Your task to perform on an android device: What's the weather going to be tomorrow? Image 0: 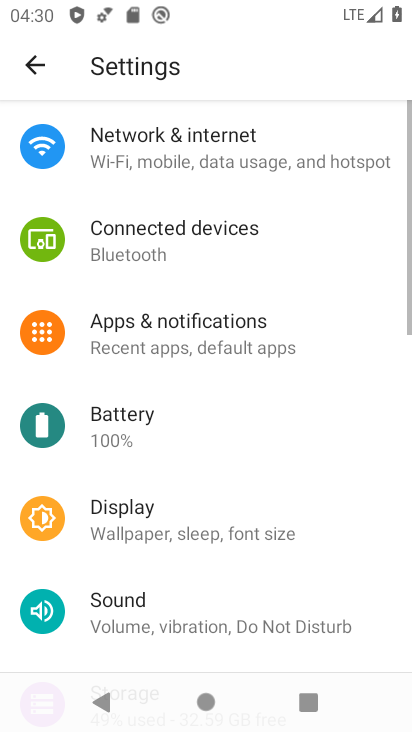
Step 0: press home button
Your task to perform on an android device: What's the weather going to be tomorrow? Image 1: 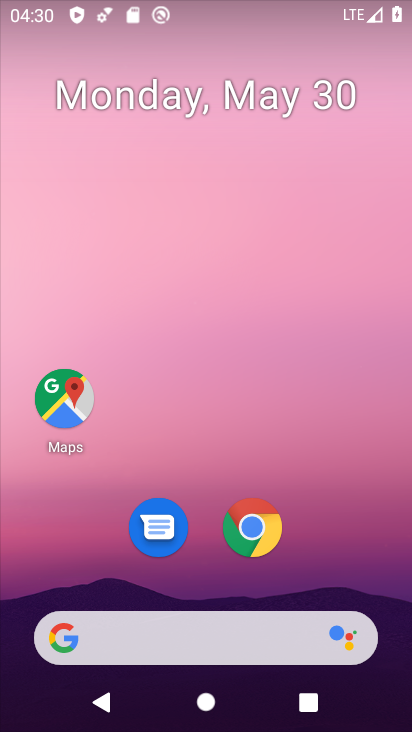
Step 1: drag from (226, 709) to (228, 629)
Your task to perform on an android device: What's the weather going to be tomorrow? Image 2: 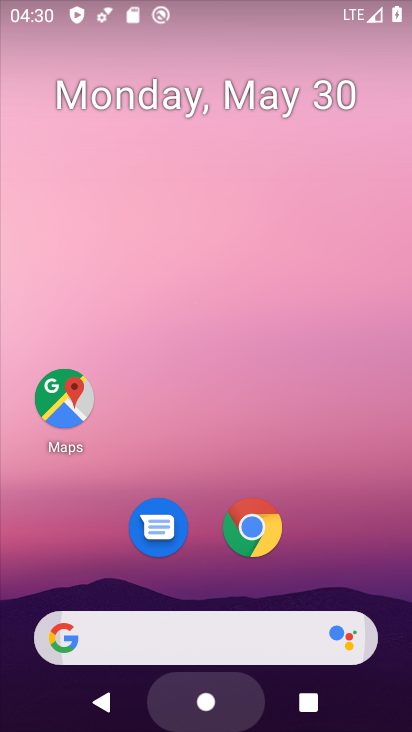
Step 2: drag from (226, 65) to (244, 25)
Your task to perform on an android device: What's the weather going to be tomorrow? Image 3: 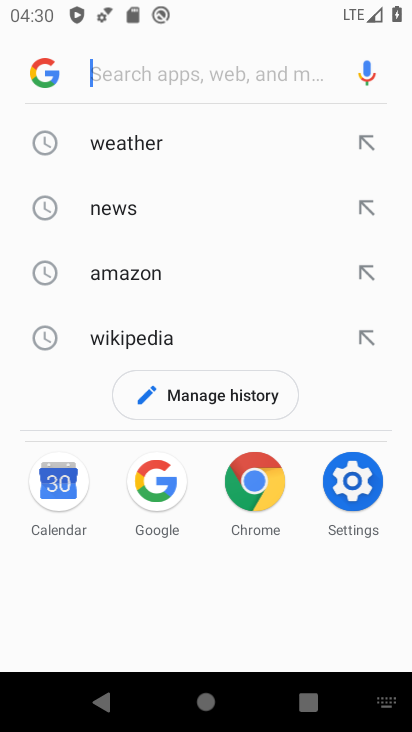
Step 3: press home button
Your task to perform on an android device: What's the weather going to be tomorrow? Image 4: 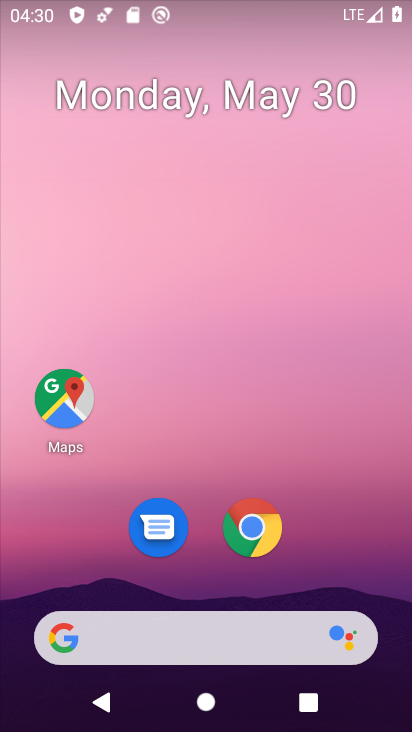
Step 4: drag from (236, 726) to (222, 14)
Your task to perform on an android device: What's the weather going to be tomorrow? Image 5: 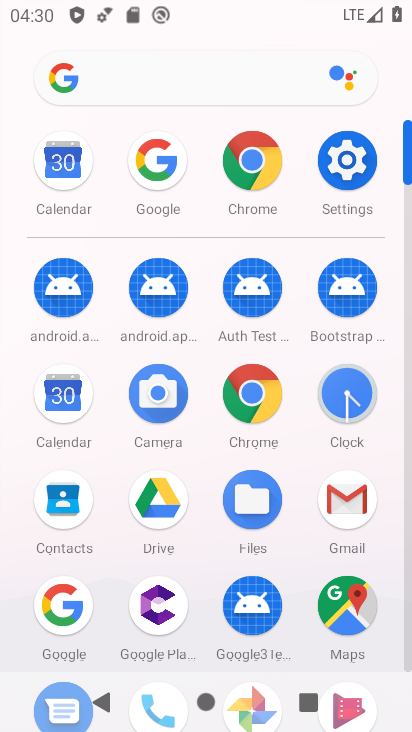
Step 5: click (66, 601)
Your task to perform on an android device: What's the weather going to be tomorrow? Image 6: 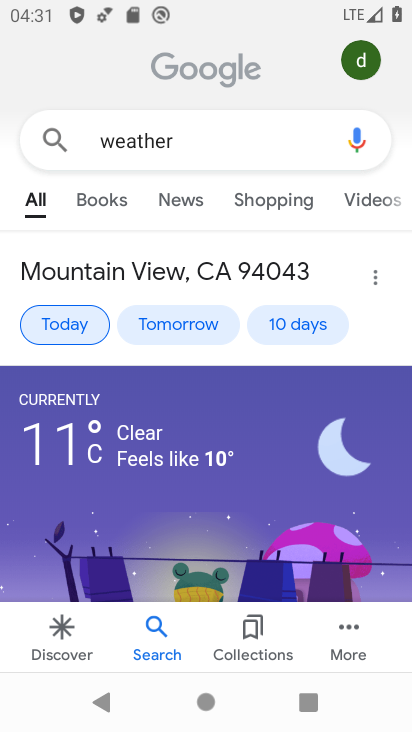
Step 6: click (185, 328)
Your task to perform on an android device: What's the weather going to be tomorrow? Image 7: 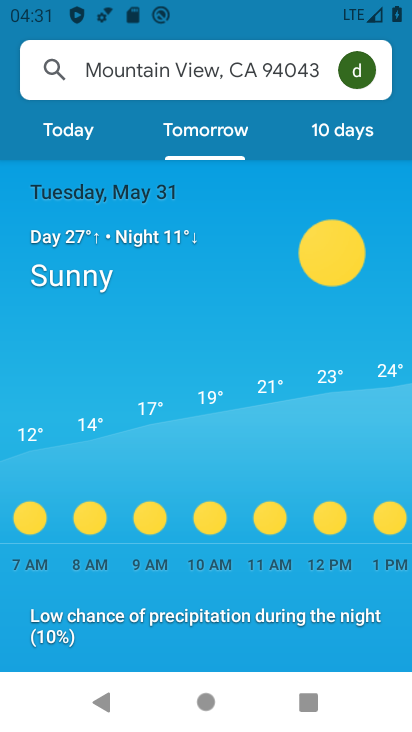
Step 7: task complete